Your task to perform on an android device: Search for sushi restaurants on Maps Image 0: 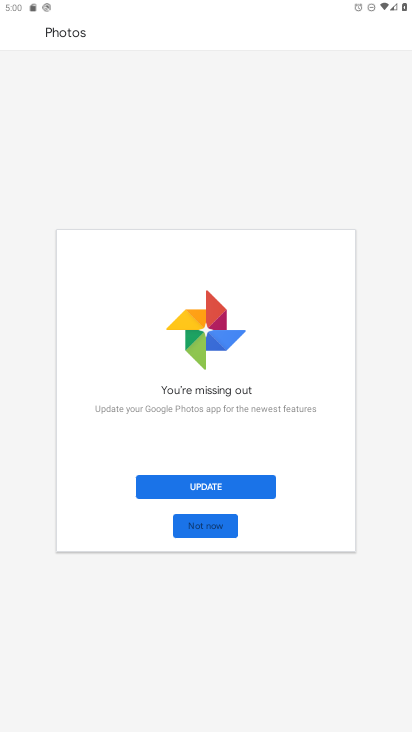
Step 0: press home button
Your task to perform on an android device: Search for sushi restaurants on Maps Image 1: 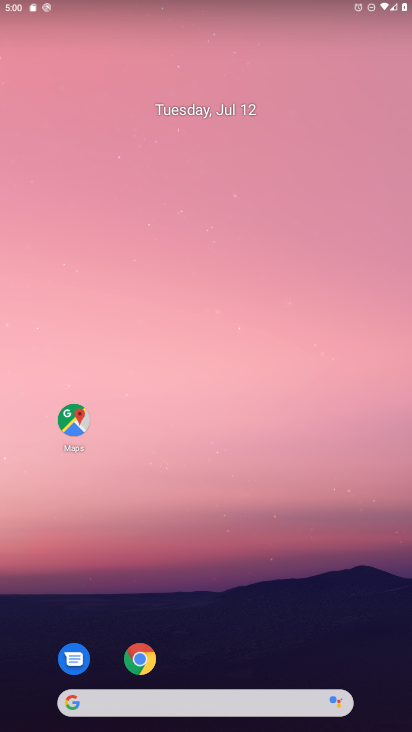
Step 1: click (82, 425)
Your task to perform on an android device: Search for sushi restaurants on Maps Image 2: 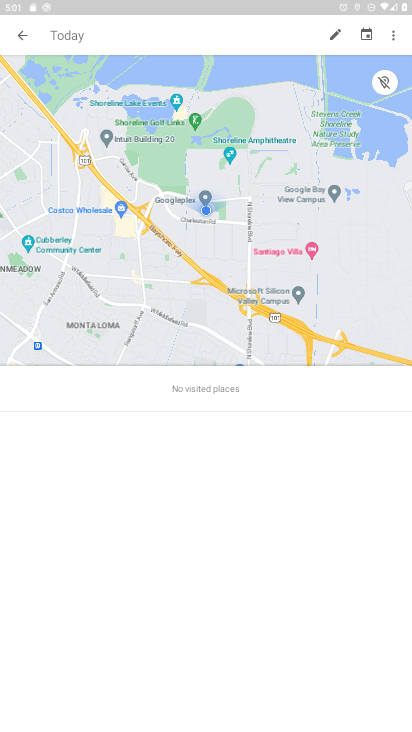
Step 2: click (12, 32)
Your task to perform on an android device: Search for sushi restaurants on Maps Image 3: 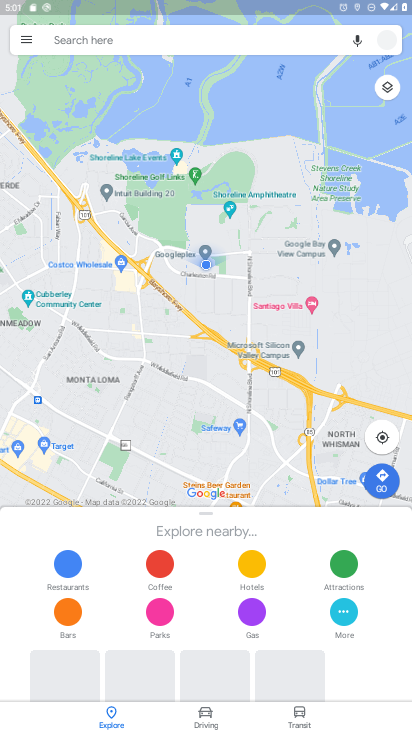
Step 3: click (125, 33)
Your task to perform on an android device: Search for sushi restaurants on Maps Image 4: 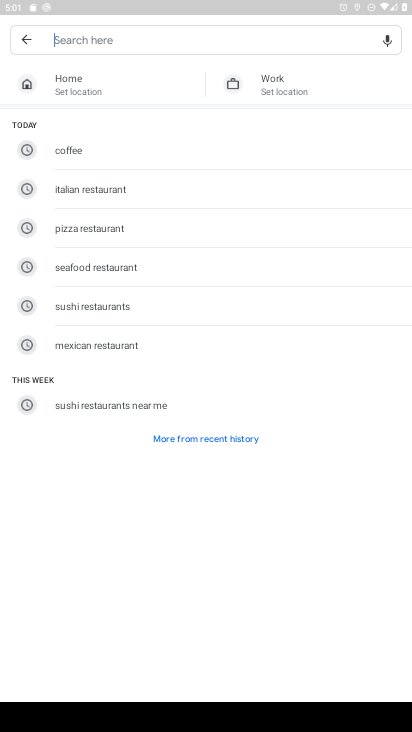
Step 4: click (120, 305)
Your task to perform on an android device: Search for sushi restaurants on Maps Image 5: 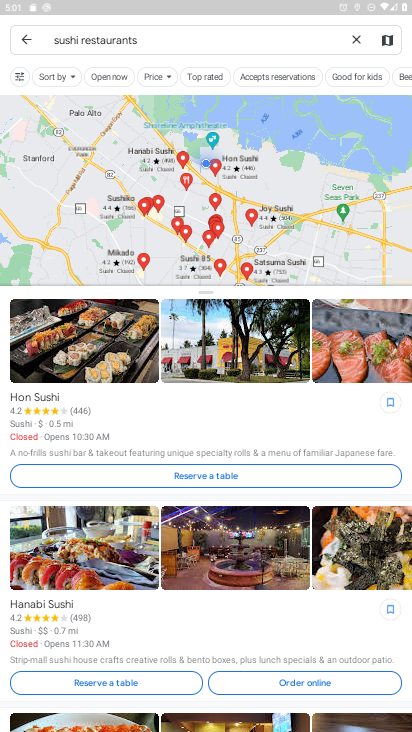
Step 5: task complete